Your task to perform on an android device: check the backup settings in the google photos Image 0: 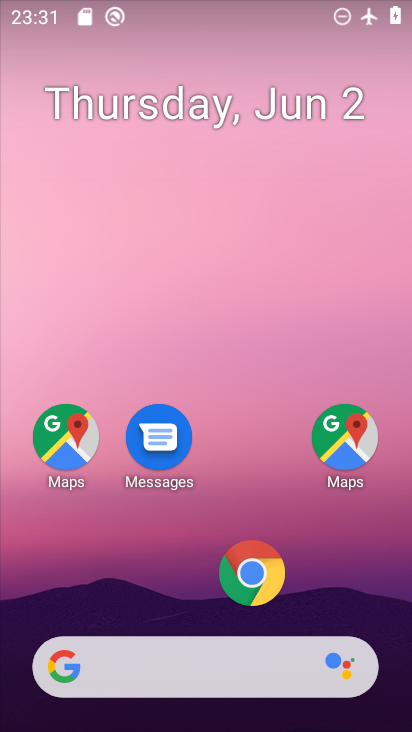
Step 0: drag from (228, 433) to (193, 101)
Your task to perform on an android device: check the backup settings in the google photos Image 1: 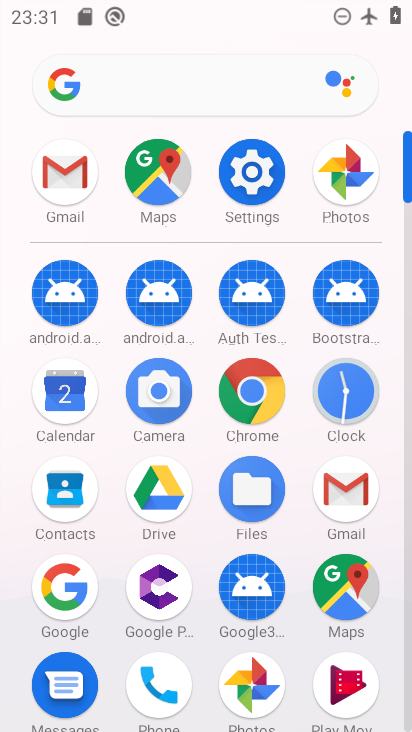
Step 1: click (267, 694)
Your task to perform on an android device: check the backup settings in the google photos Image 2: 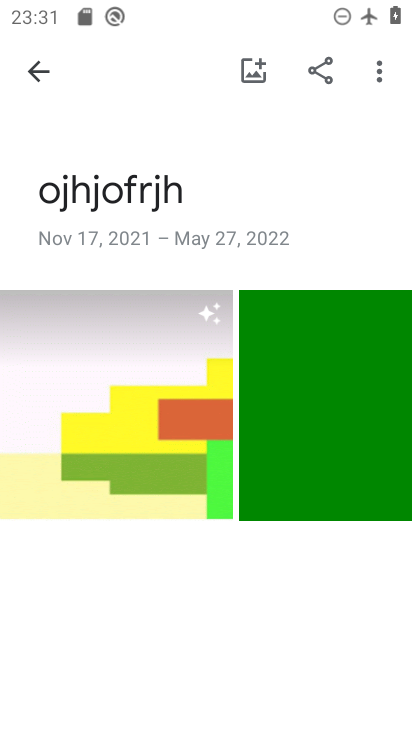
Step 2: click (41, 79)
Your task to perform on an android device: check the backup settings in the google photos Image 3: 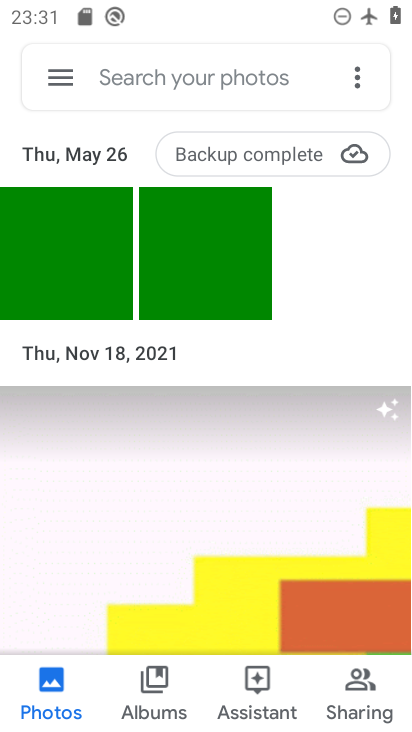
Step 3: click (41, 79)
Your task to perform on an android device: check the backup settings in the google photos Image 4: 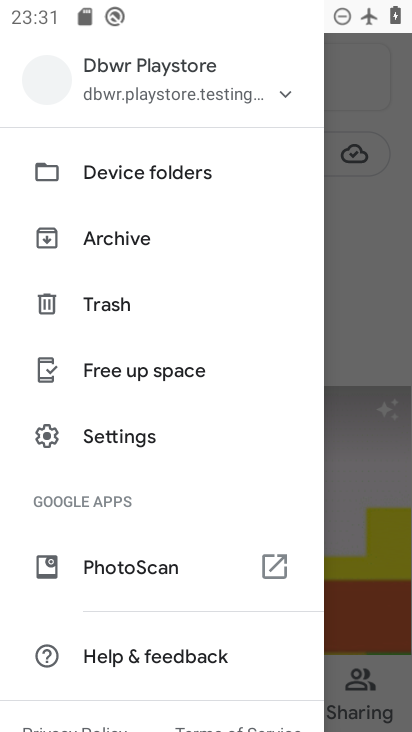
Step 4: click (108, 431)
Your task to perform on an android device: check the backup settings in the google photos Image 5: 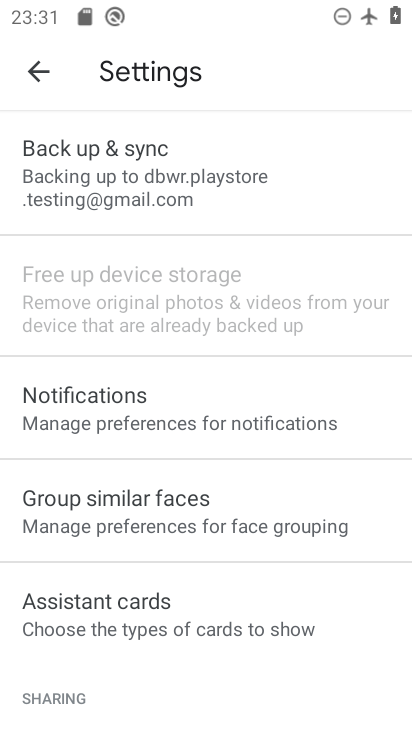
Step 5: click (124, 208)
Your task to perform on an android device: check the backup settings in the google photos Image 6: 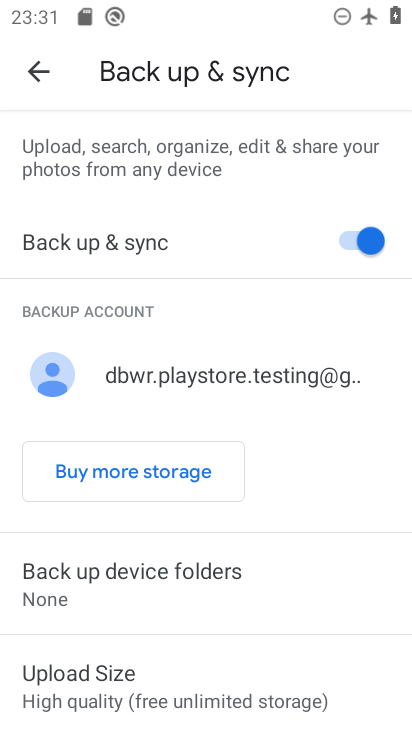
Step 6: click (148, 575)
Your task to perform on an android device: check the backup settings in the google photos Image 7: 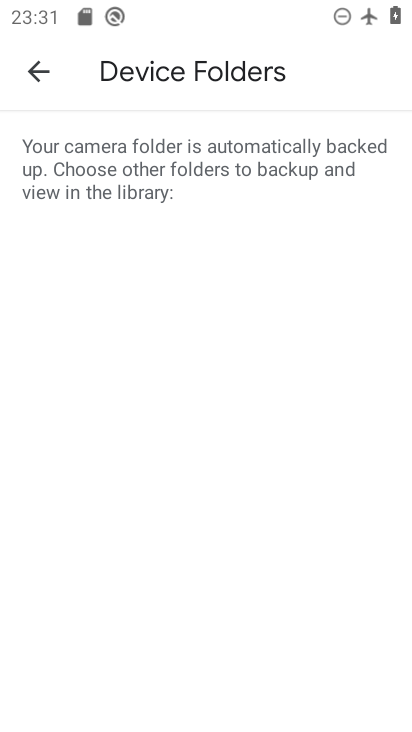
Step 7: task complete